Your task to perform on an android device: Clear the cart on costco. Search for alienware area 51 on costco, select the first entry, and add it to the cart. Image 0: 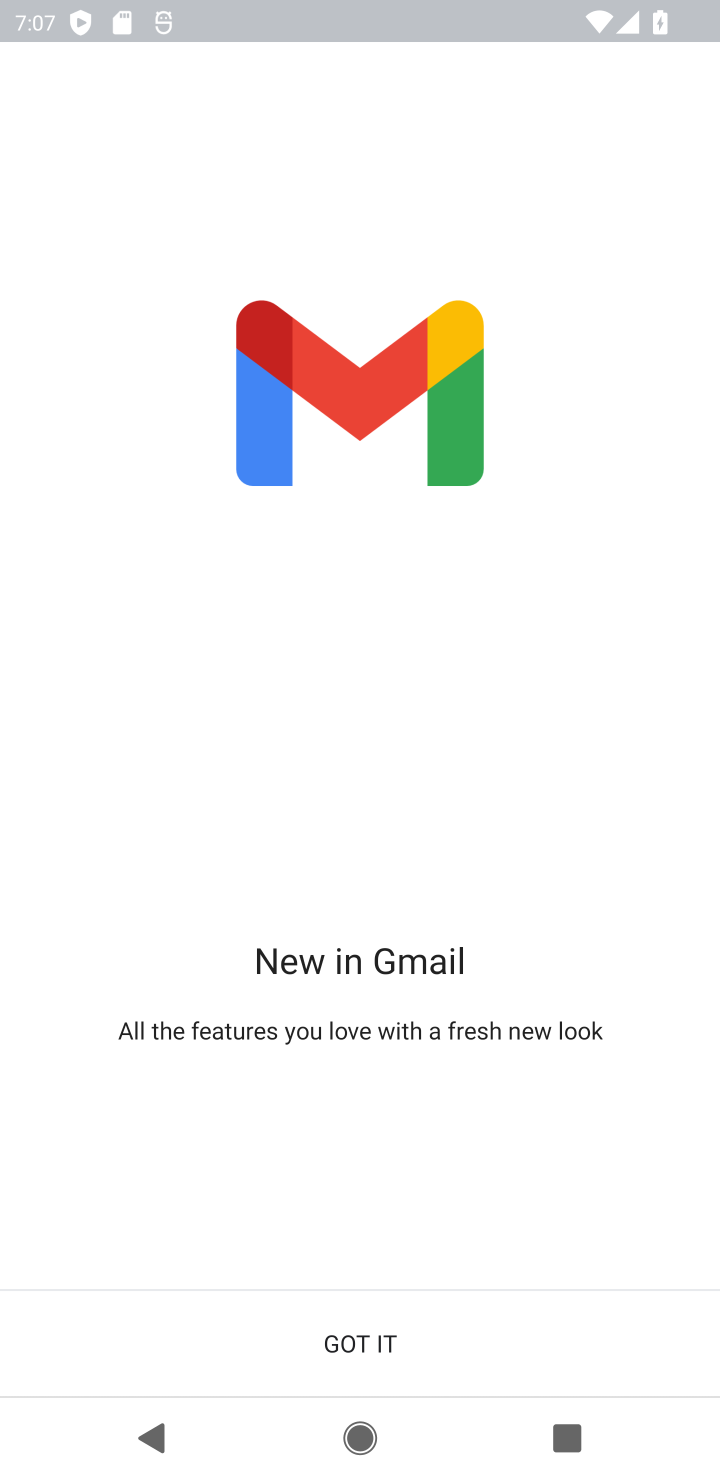
Step 0: press home button
Your task to perform on an android device: Clear the cart on costco. Search for alienware area 51 on costco, select the first entry, and add it to the cart. Image 1: 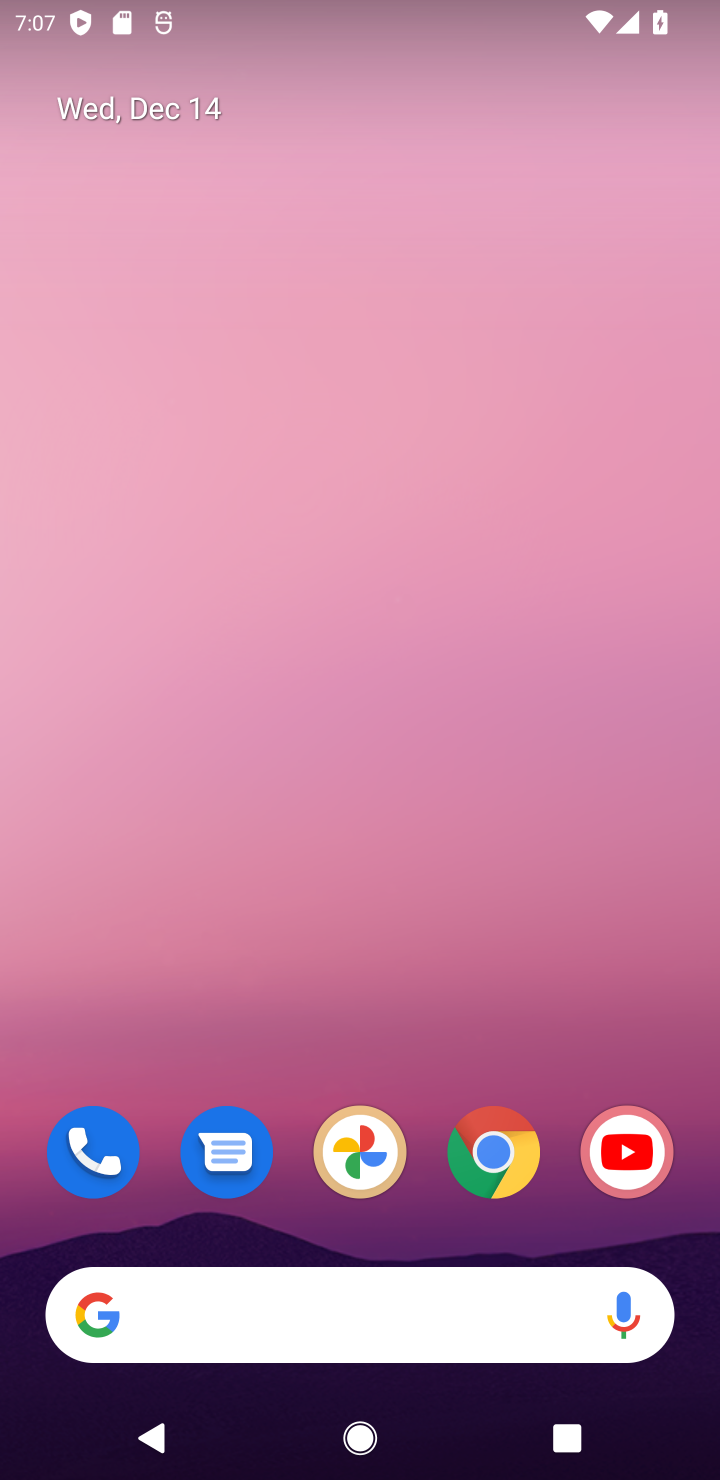
Step 1: click (482, 1154)
Your task to perform on an android device: Clear the cart on costco. Search for alienware area 51 on costco, select the first entry, and add it to the cart. Image 2: 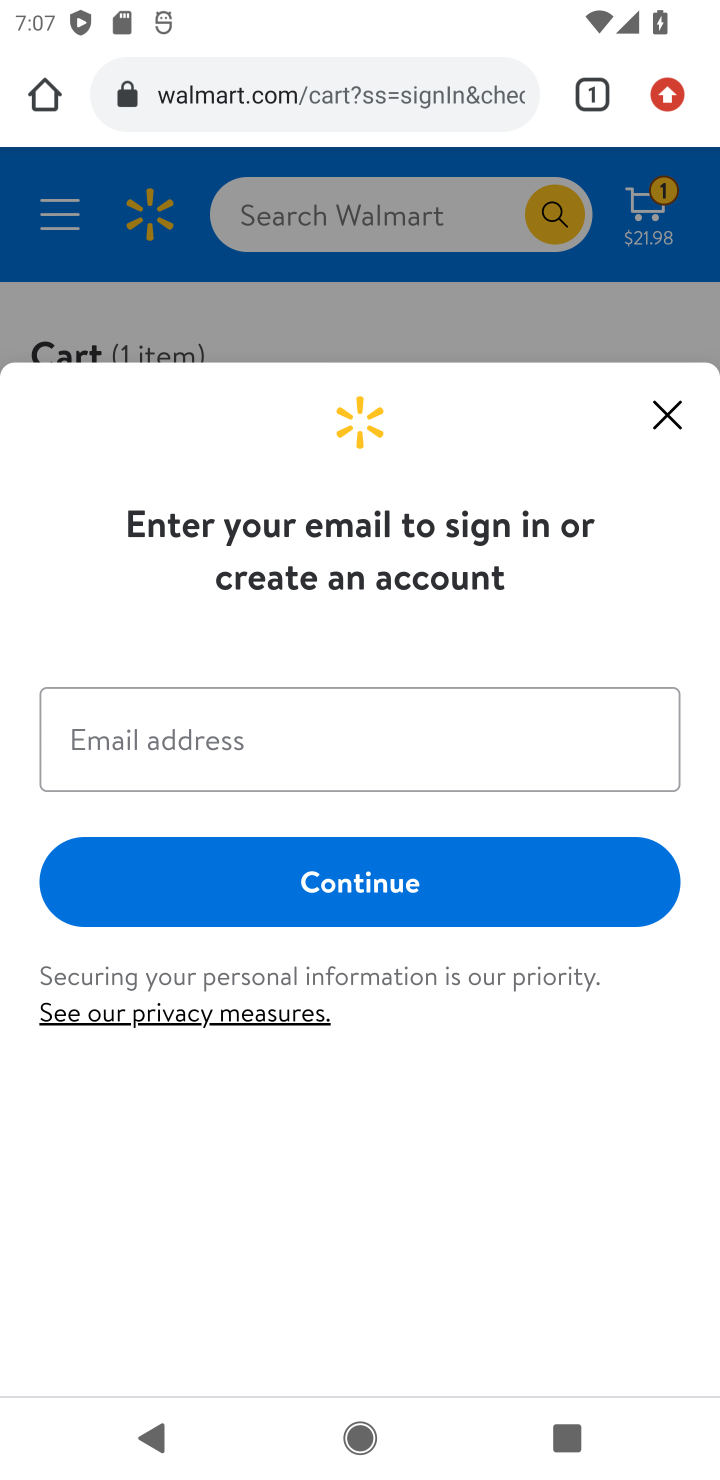
Step 2: click (298, 86)
Your task to perform on an android device: Clear the cart on costco. Search for alienware area 51 on costco, select the first entry, and add it to the cart. Image 3: 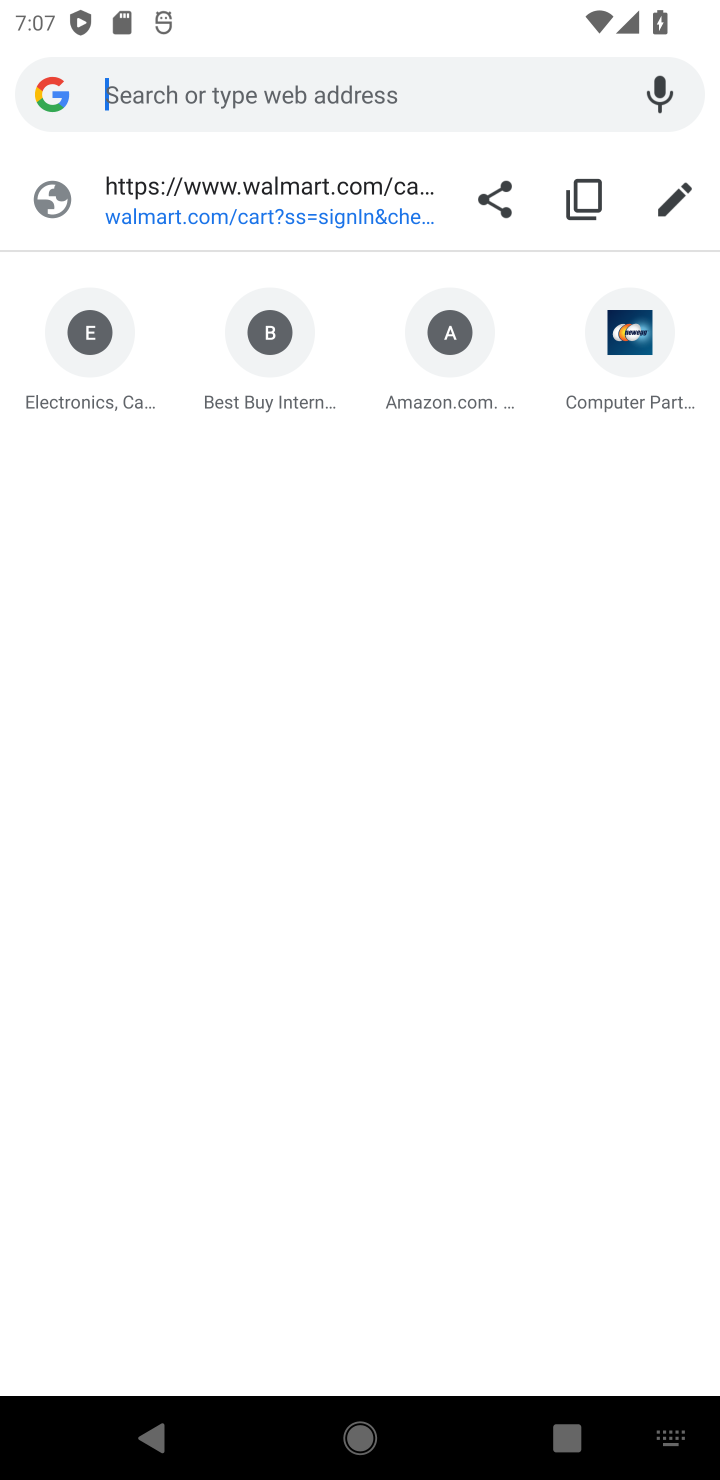
Step 3: type "costco.com"
Your task to perform on an android device: Clear the cart on costco. Search for alienware area 51 on costco, select the first entry, and add it to the cart. Image 4: 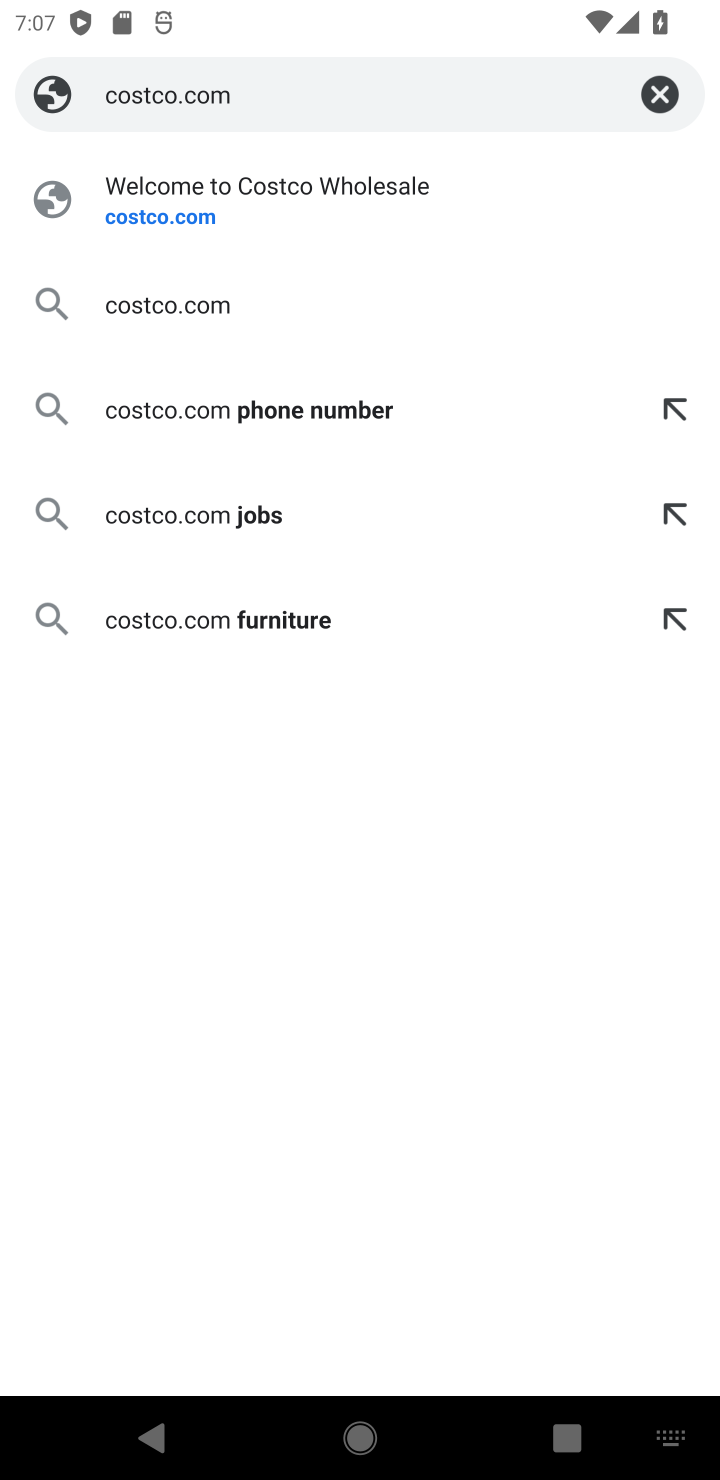
Step 4: click (130, 207)
Your task to perform on an android device: Clear the cart on costco. Search for alienware area 51 on costco, select the first entry, and add it to the cart. Image 5: 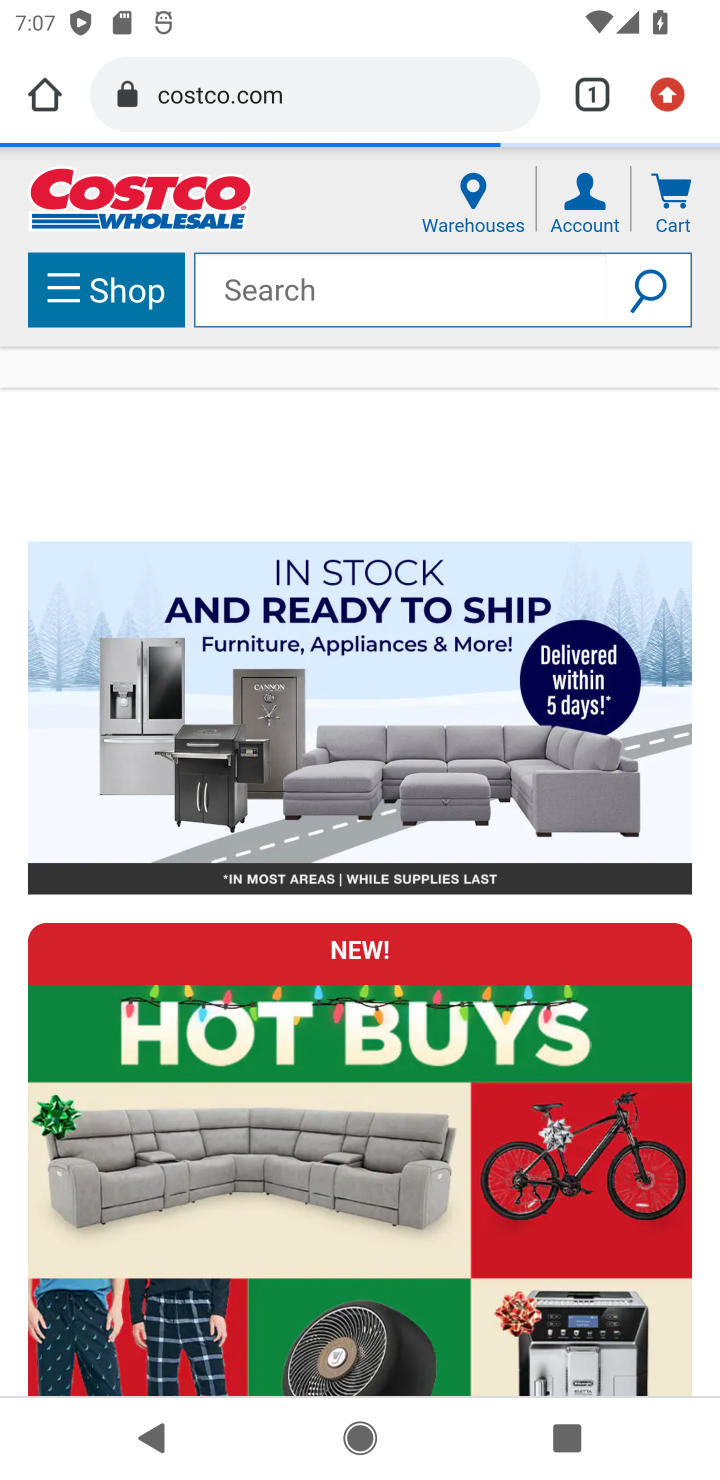
Step 5: click (681, 201)
Your task to perform on an android device: Clear the cart on costco. Search for alienware area 51 on costco, select the first entry, and add it to the cart. Image 6: 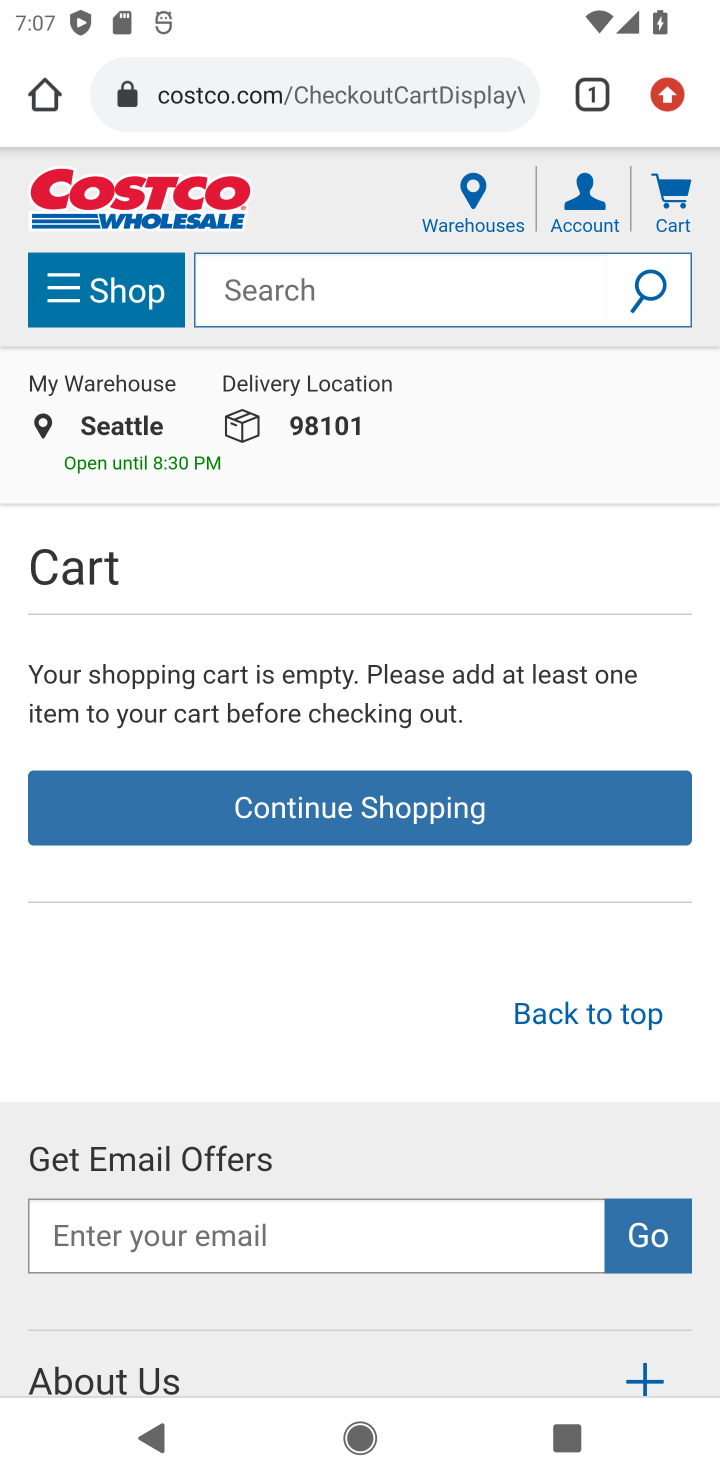
Step 6: click (296, 291)
Your task to perform on an android device: Clear the cart on costco. Search for alienware area 51 on costco, select the first entry, and add it to the cart. Image 7: 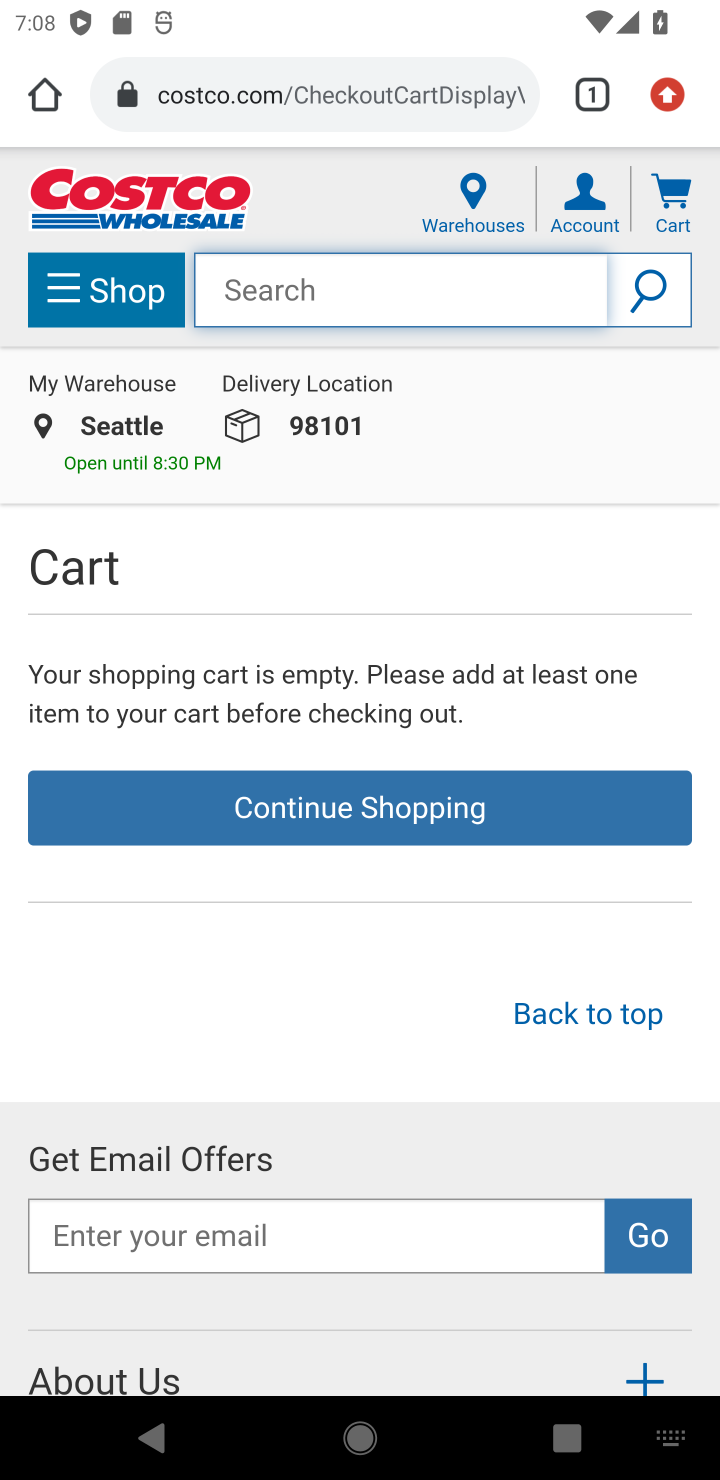
Step 7: type "alienware area 51 "
Your task to perform on an android device: Clear the cart on costco. Search for alienware area 51 on costco, select the first entry, and add it to the cart. Image 8: 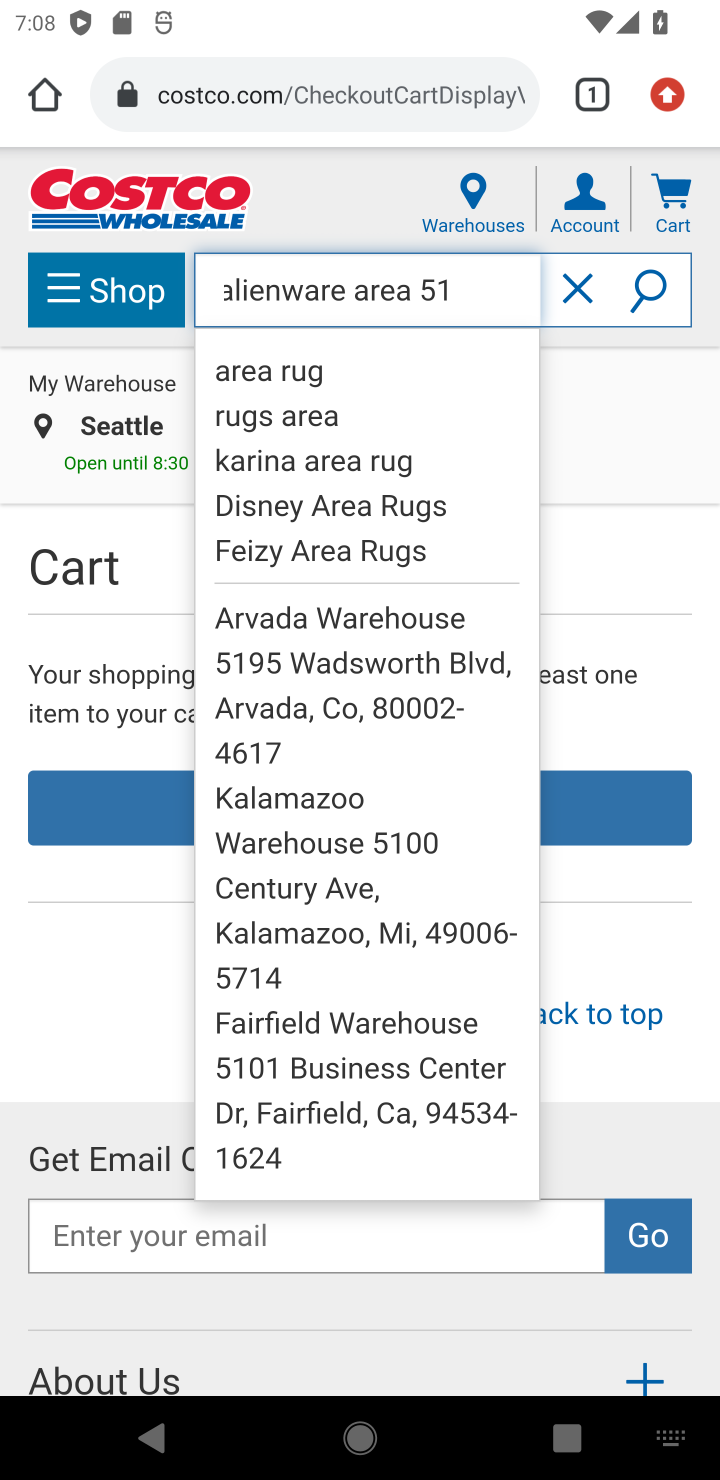
Step 8: click (653, 296)
Your task to perform on an android device: Clear the cart on costco. Search for alienware area 51 on costco, select the first entry, and add it to the cart. Image 9: 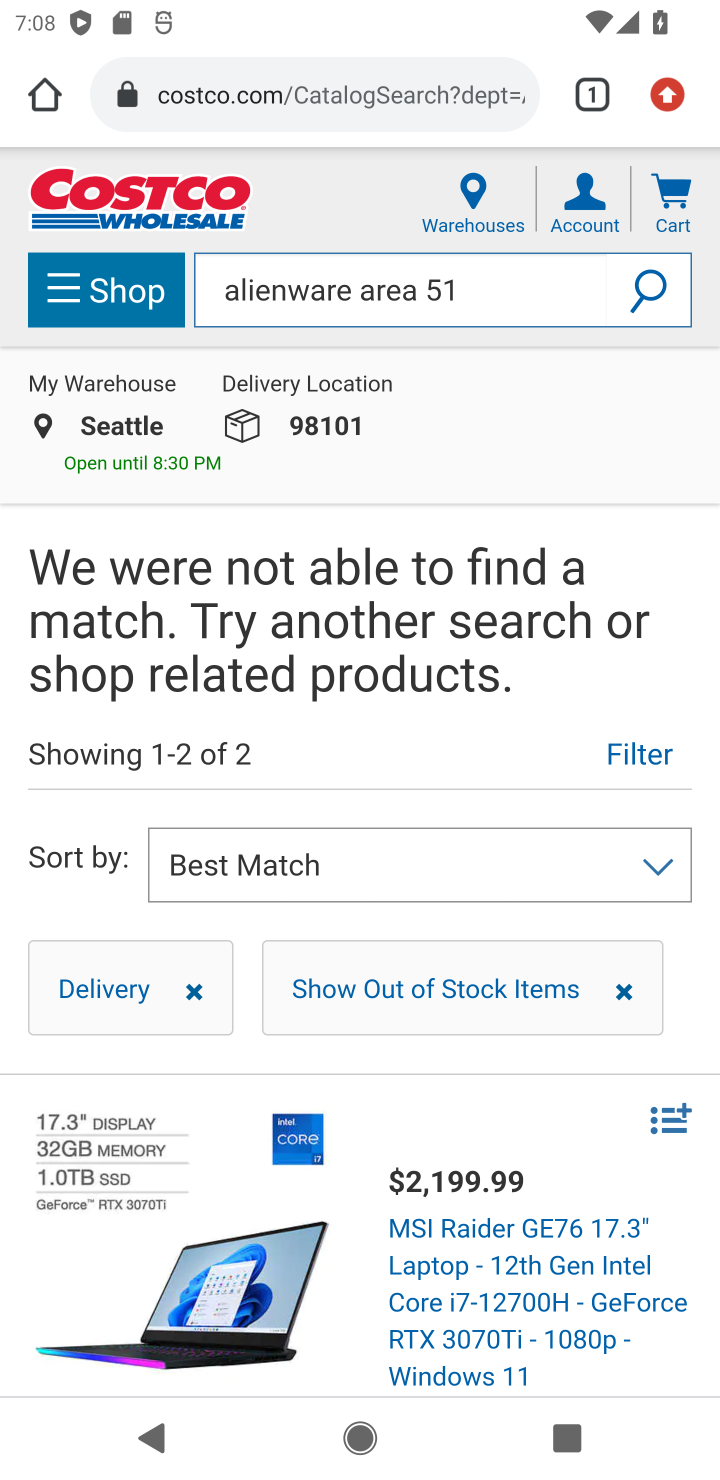
Step 9: task complete